Your task to perform on an android device: What's the weather? Image 0: 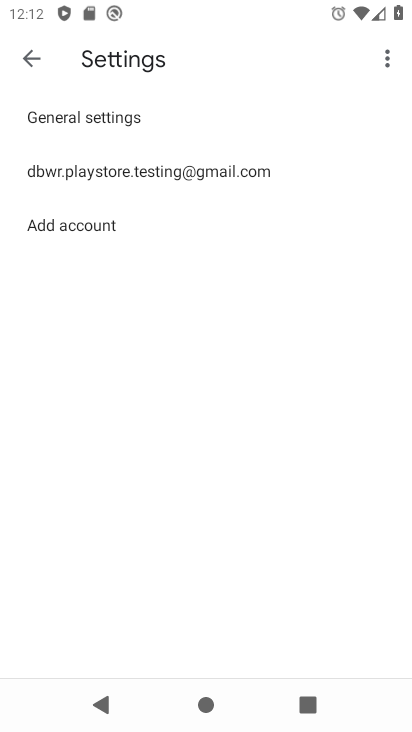
Step 0: press home button
Your task to perform on an android device: What's the weather? Image 1: 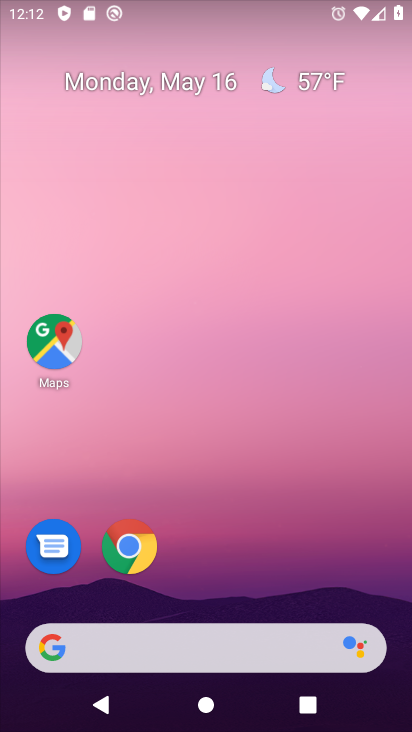
Step 1: click (118, 551)
Your task to perform on an android device: What's the weather? Image 2: 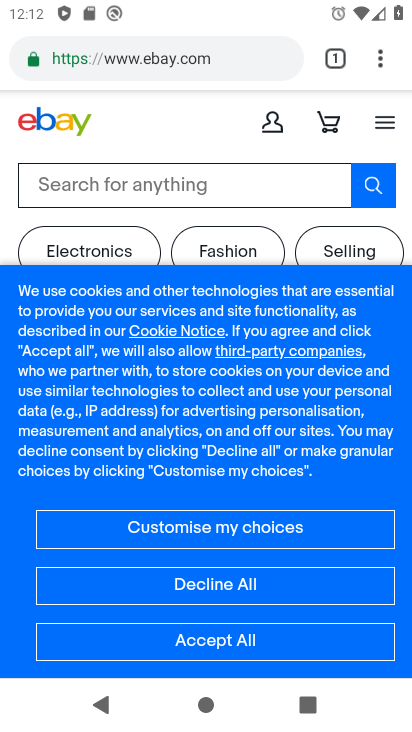
Step 2: click (183, 66)
Your task to perform on an android device: What's the weather? Image 3: 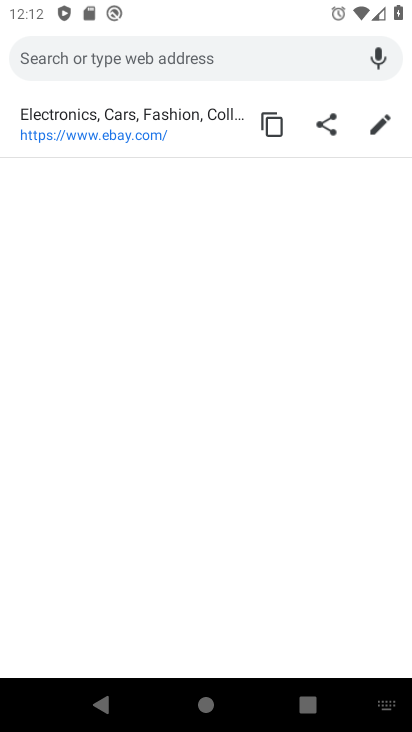
Step 3: type "whats the weather?"
Your task to perform on an android device: What's the weather? Image 4: 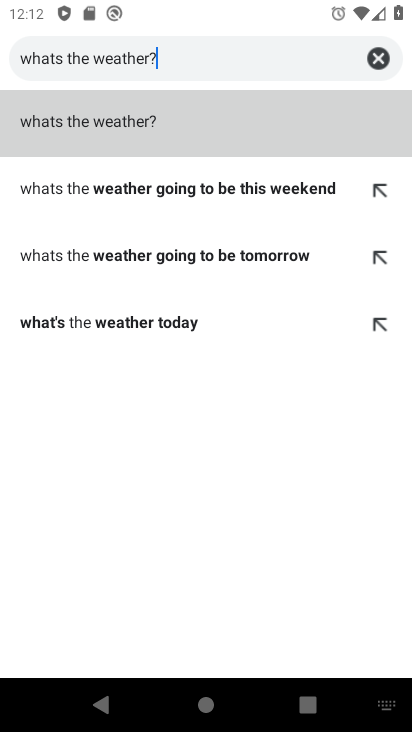
Step 4: click (115, 138)
Your task to perform on an android device: What's the weather? Image 5: 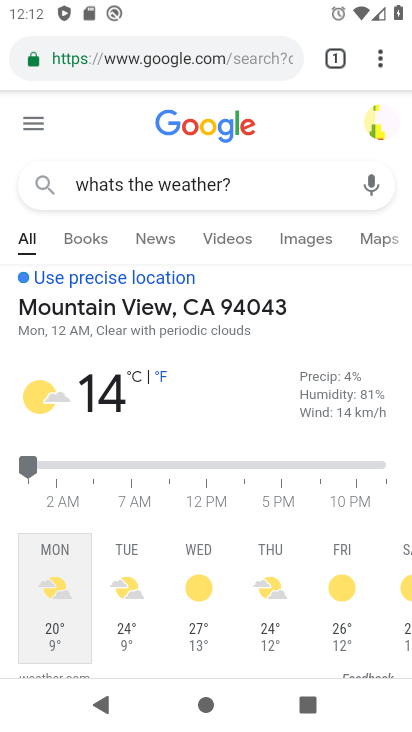
Step 5: task complete